Your task to perform on an android device: change text size in settings app Image 0: 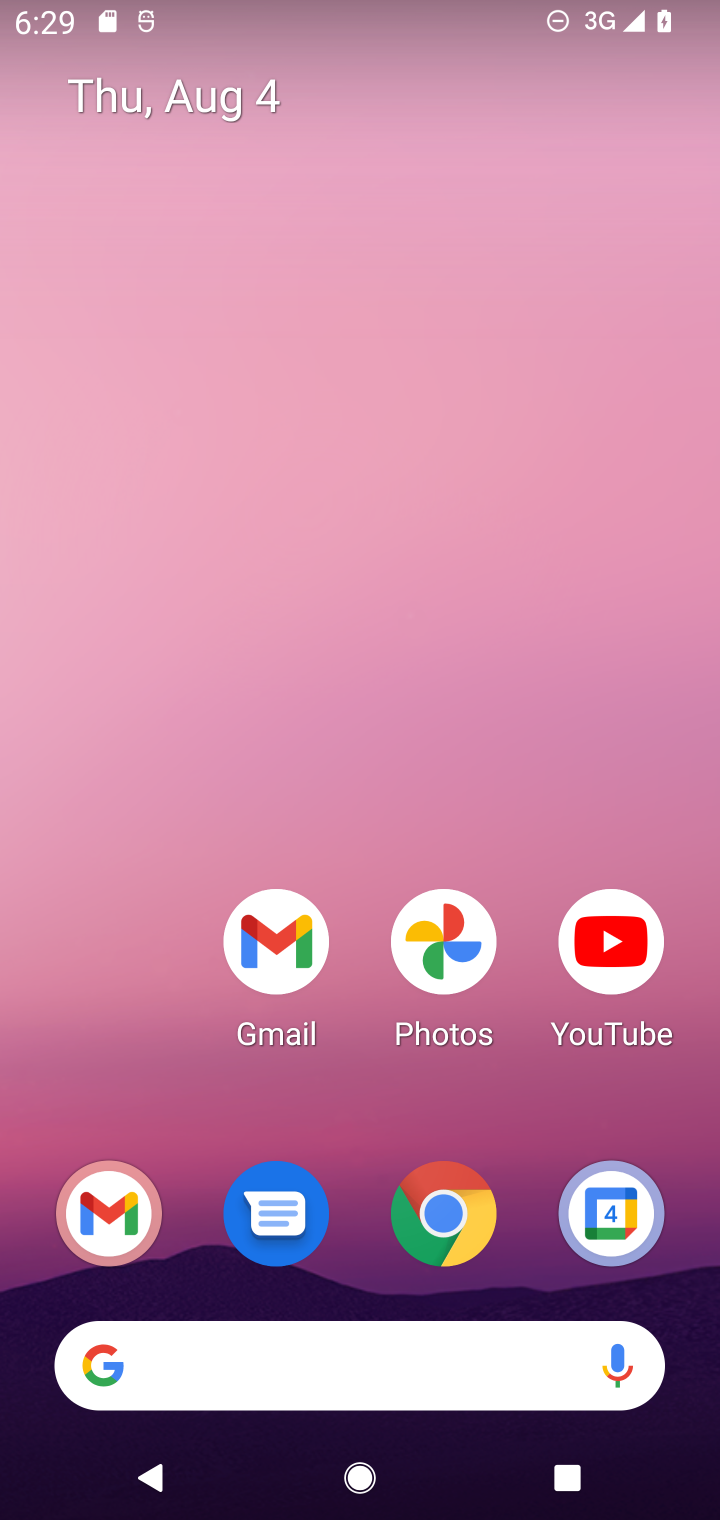
Step 0: press home button
Your task to perform on an android device: change text size in settings app Image 1: 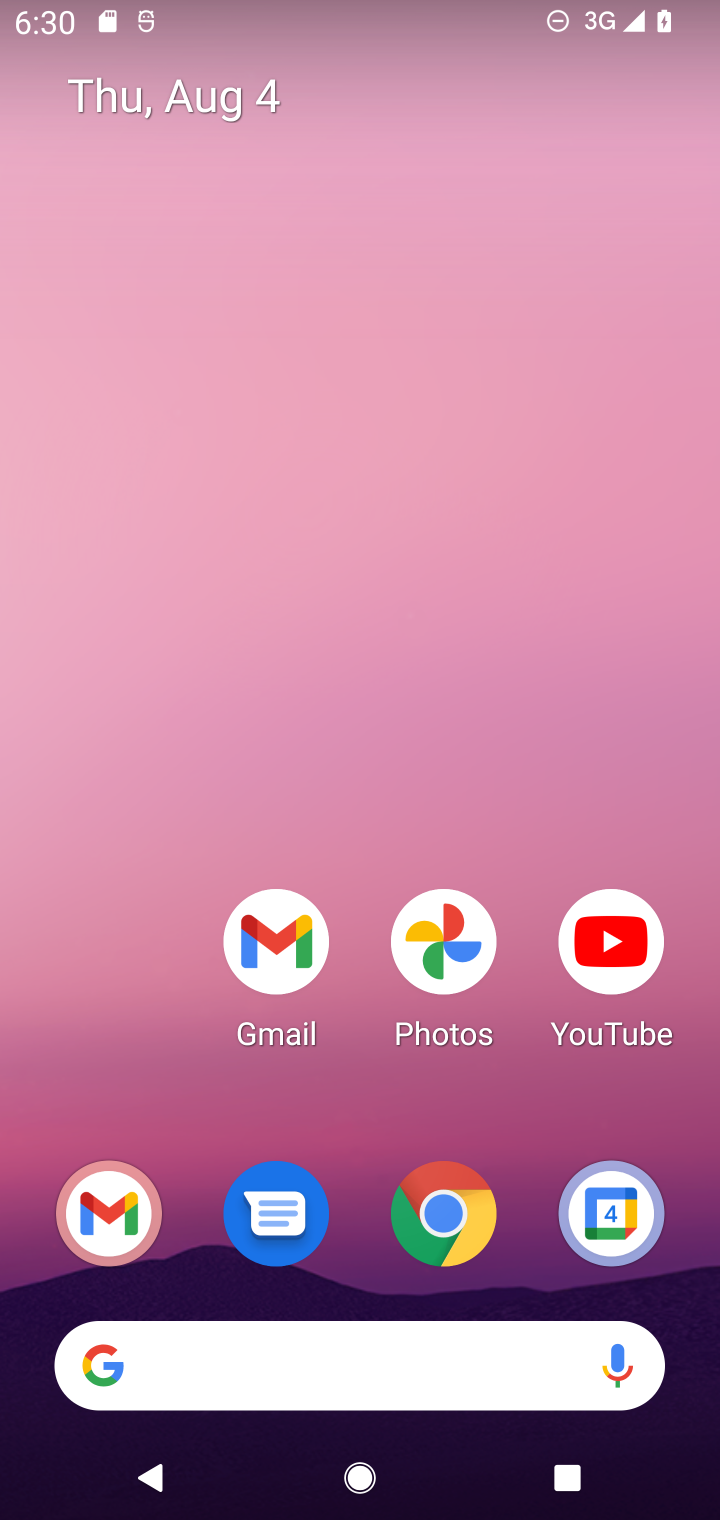
Step 1: drag from (129, 1014) to (64, 285)
Your task to perform on an android device: change text size in settings app Image 2: 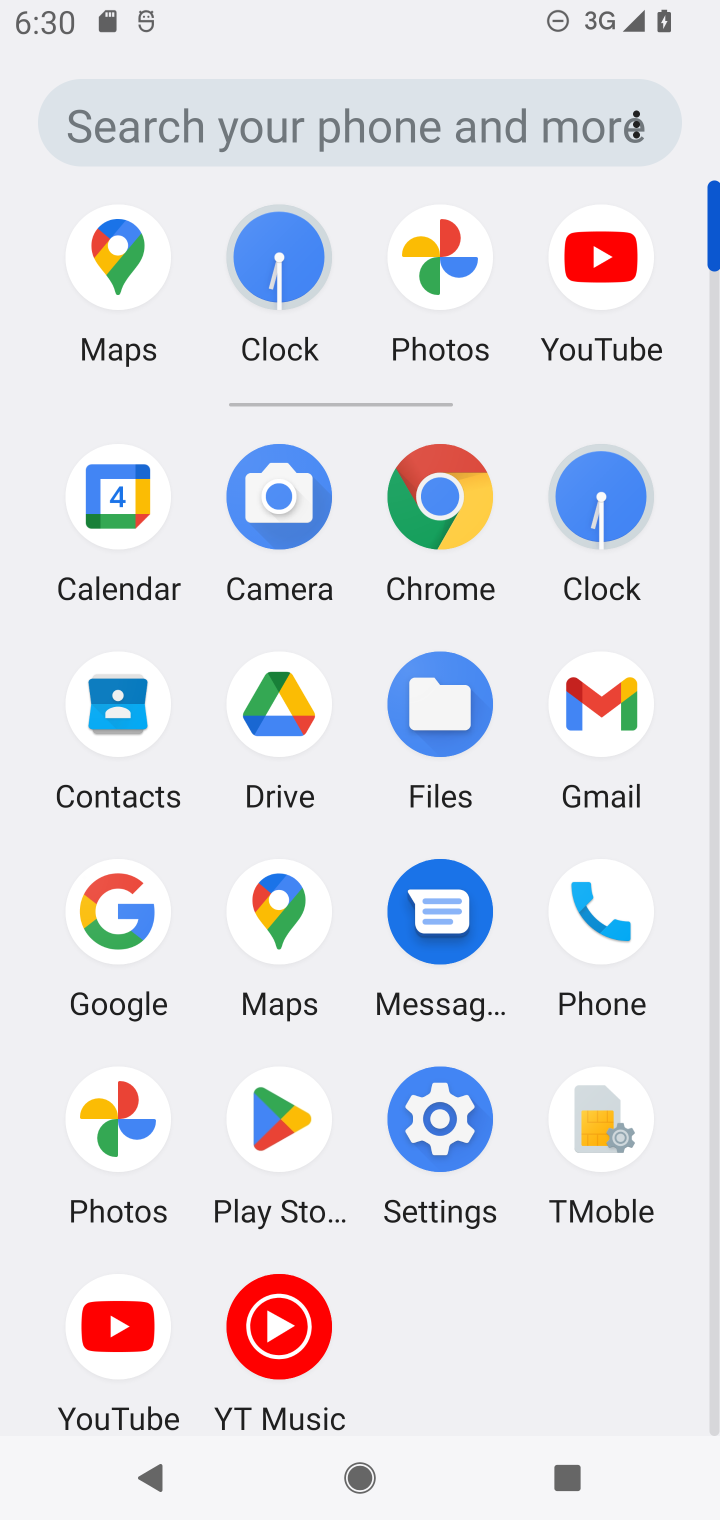
Step 2: click (456, 1120)
Your task to perform on an android device: change text size in settings app Image 3: 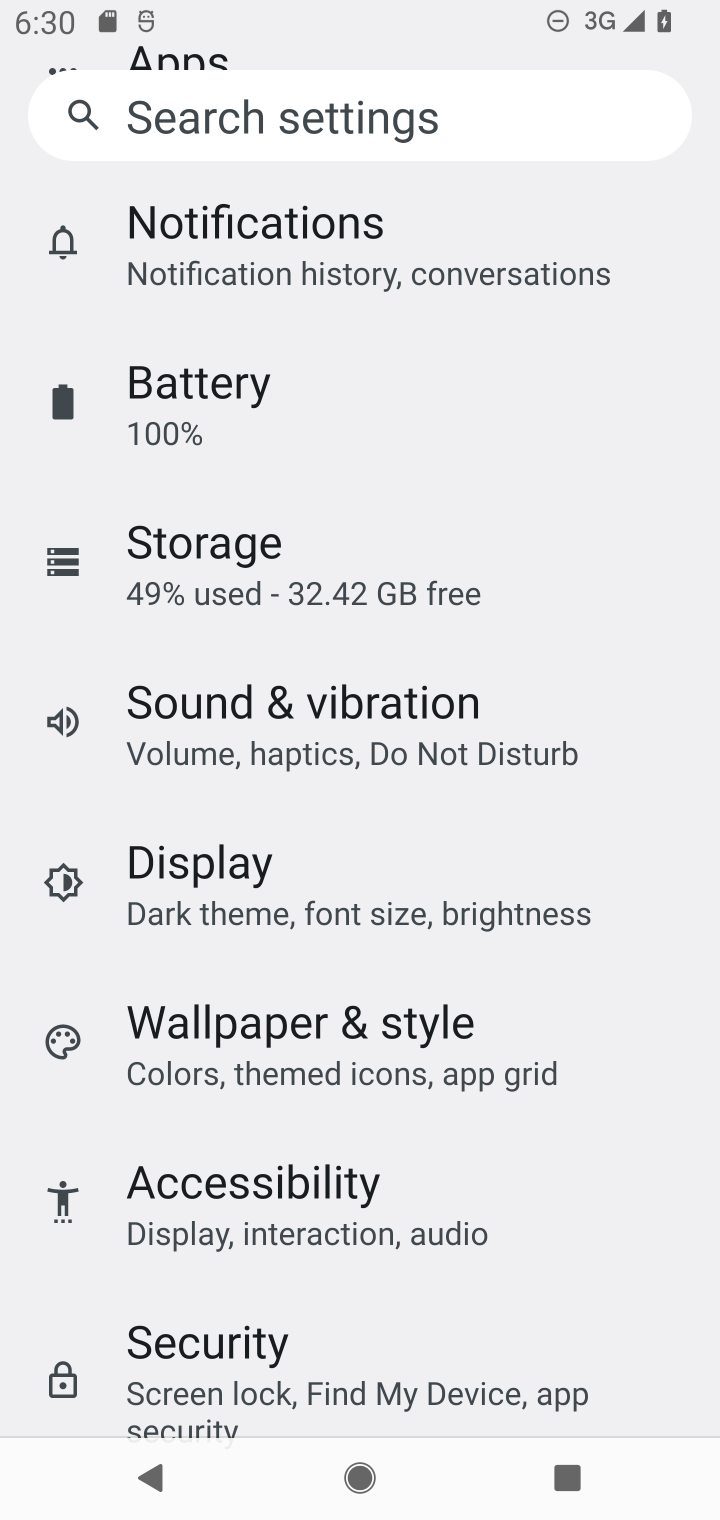
Step 3: drag from (599, 530) to (611, 819)
Your task to perform on an android device: change text size in settings app Image 4: 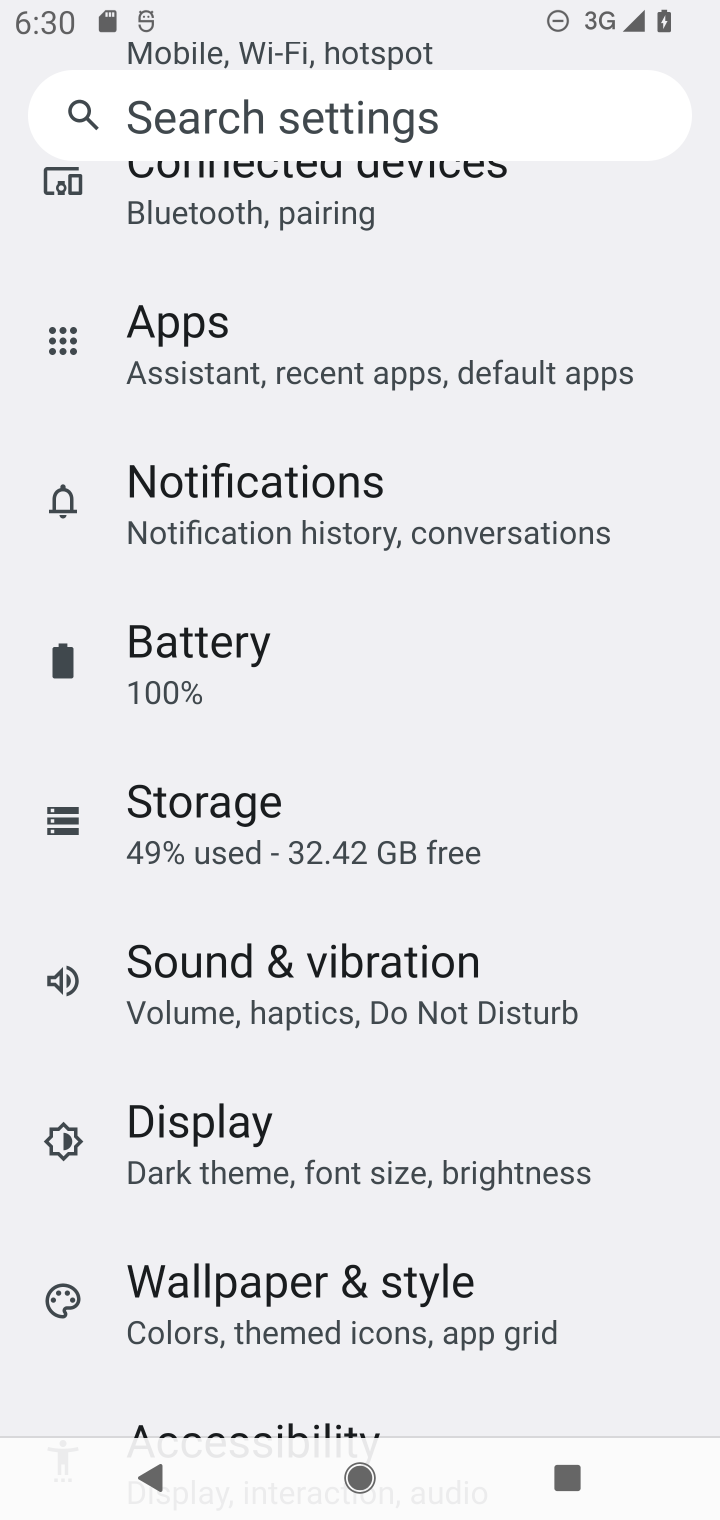
Step 4: drag from (604, 432) to (604, 897)
Your task to perform on an android device: change text size in settings app Image 5: 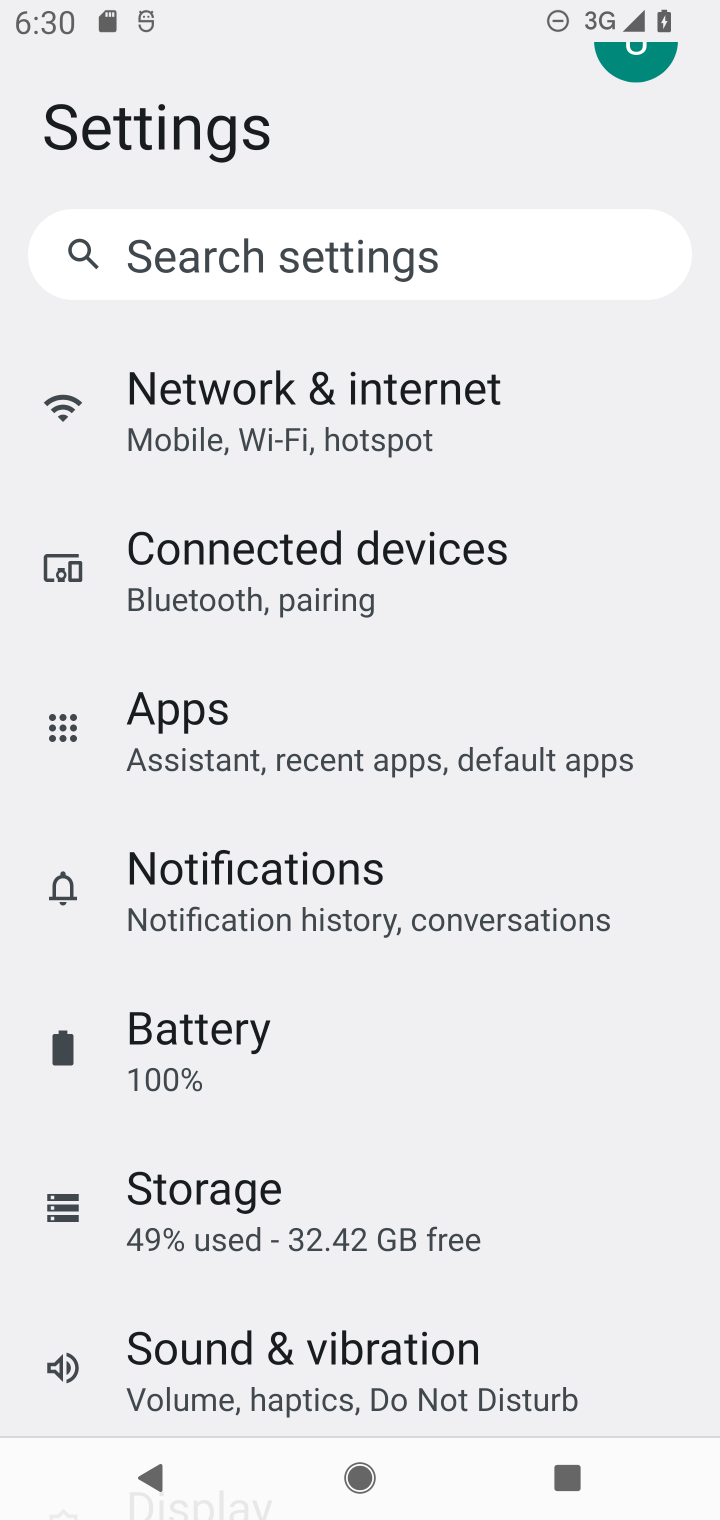
Step 5: drag from (604, 1049) to (604, 784)
Your task to perform on an android device: change text size in settings app Image 6: 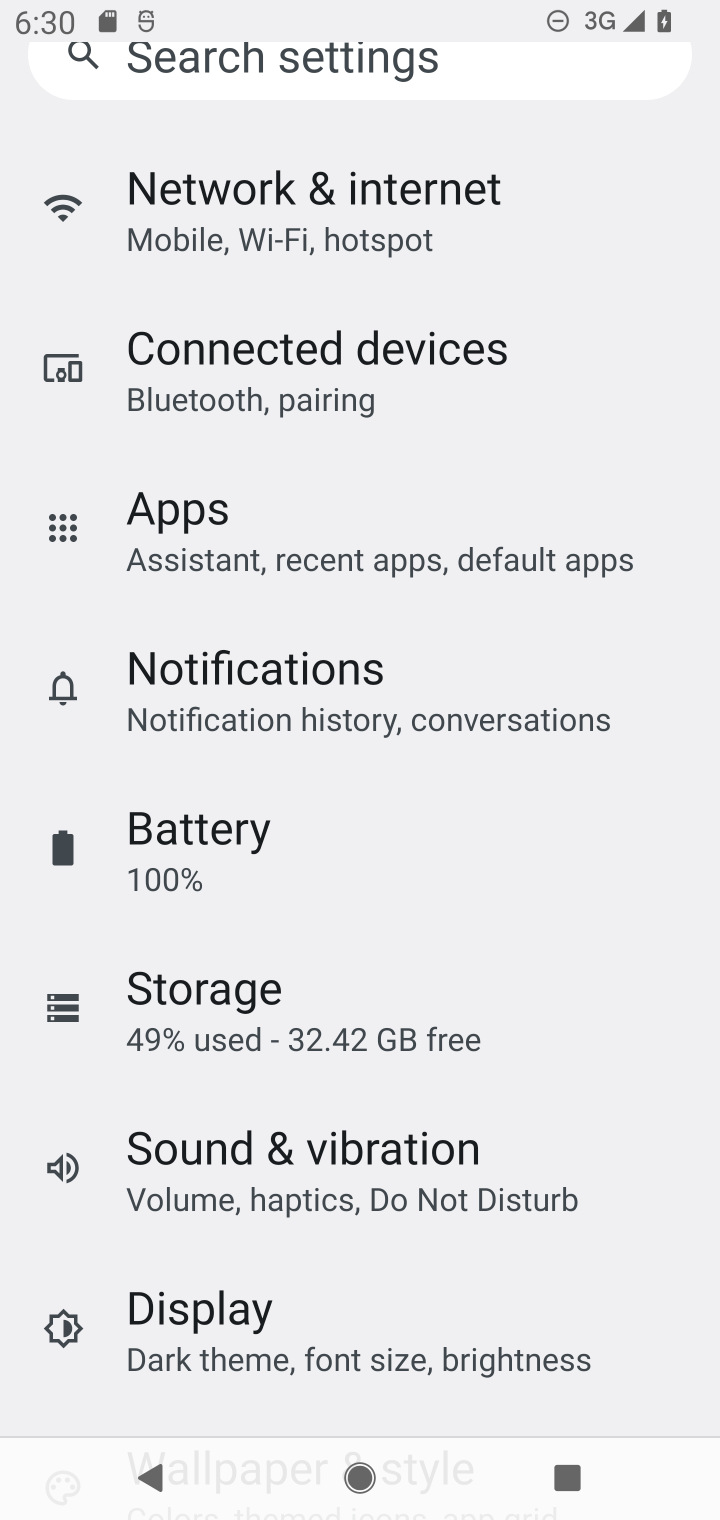
Step 6: drag from (601, 1110) to (591, 789)
Your task to perform on an android device: change text size in settings app Image 7: 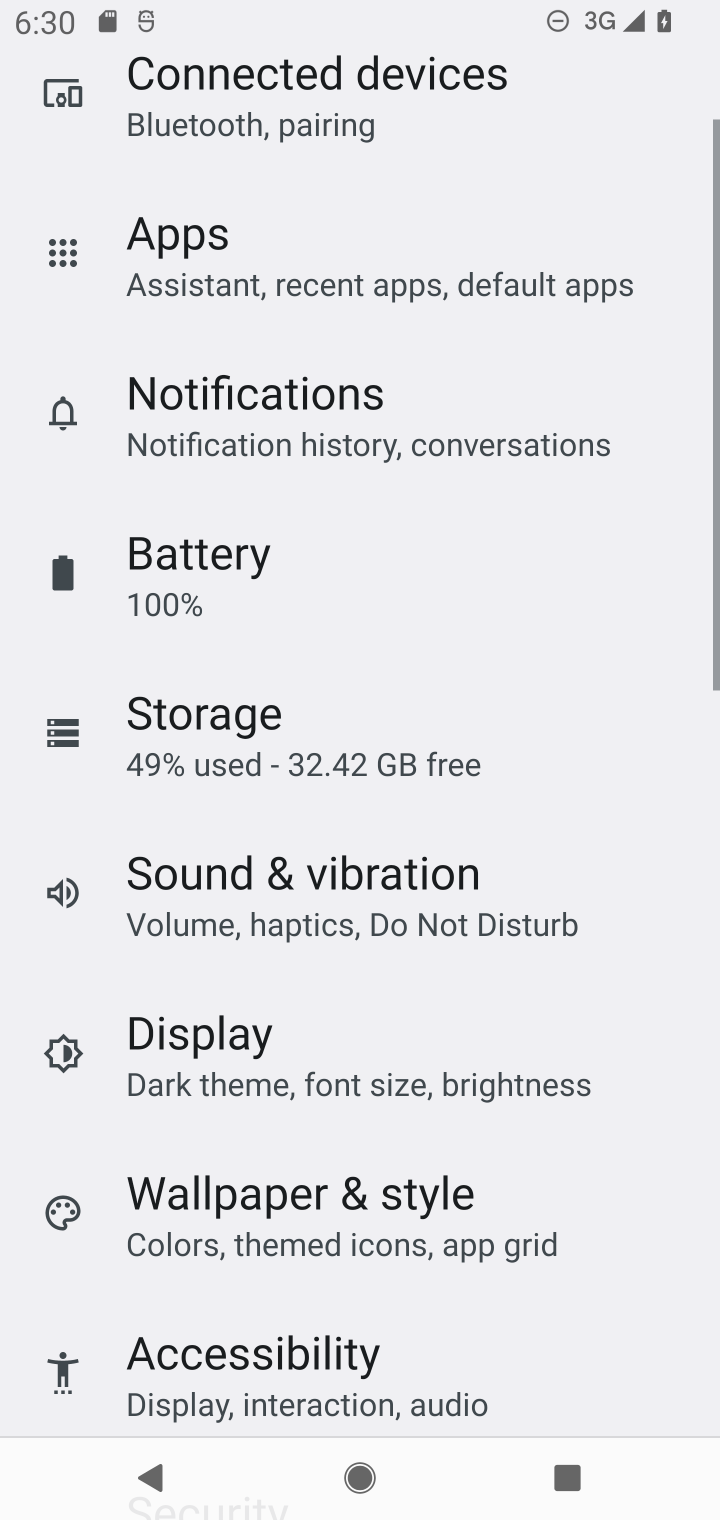
Step 7: drag from (580, 1138) to (649, 797)
Your task to perform on an android device: change text size in settings app Image 8: 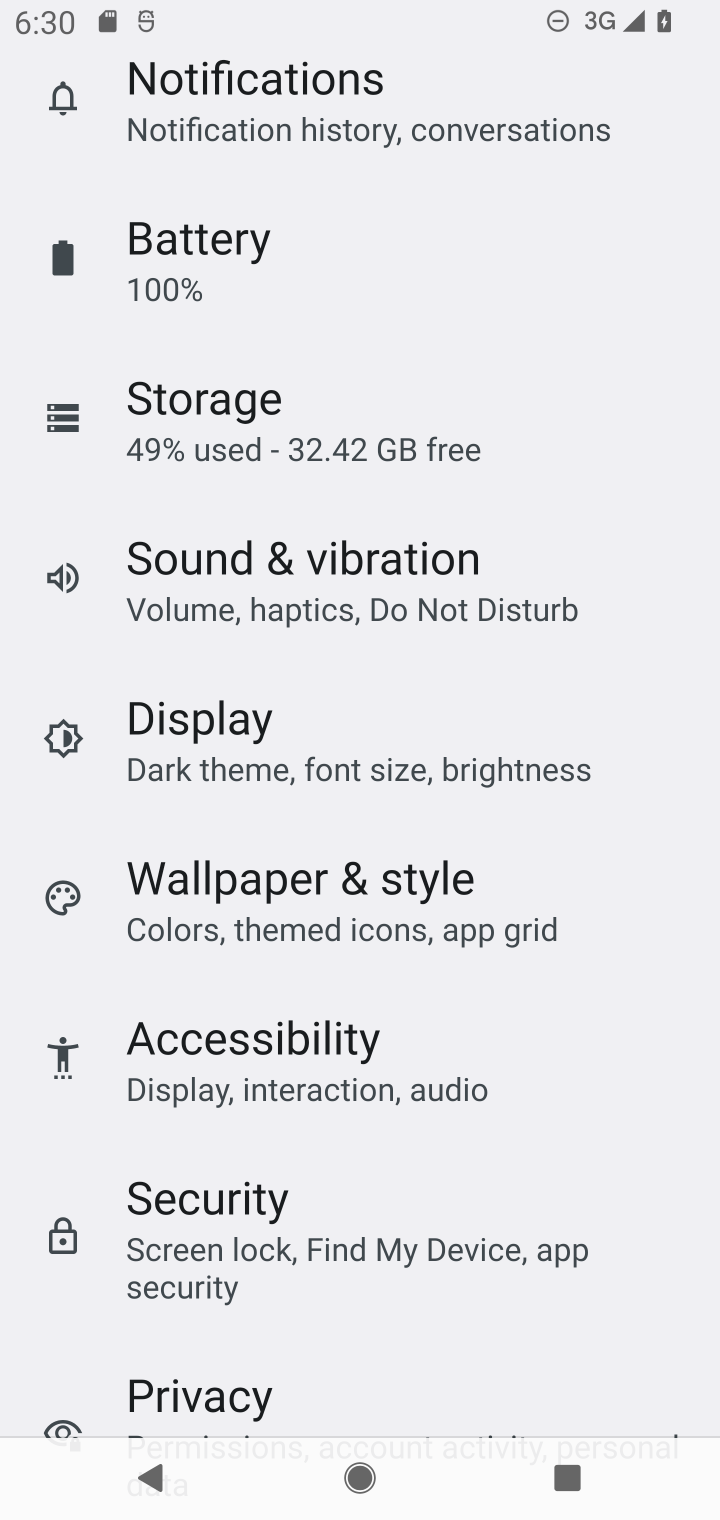
Step 8: drag from (623, 1282) to (634, 877)
Your task to perform on an android device: change text size in settings app Image 9: 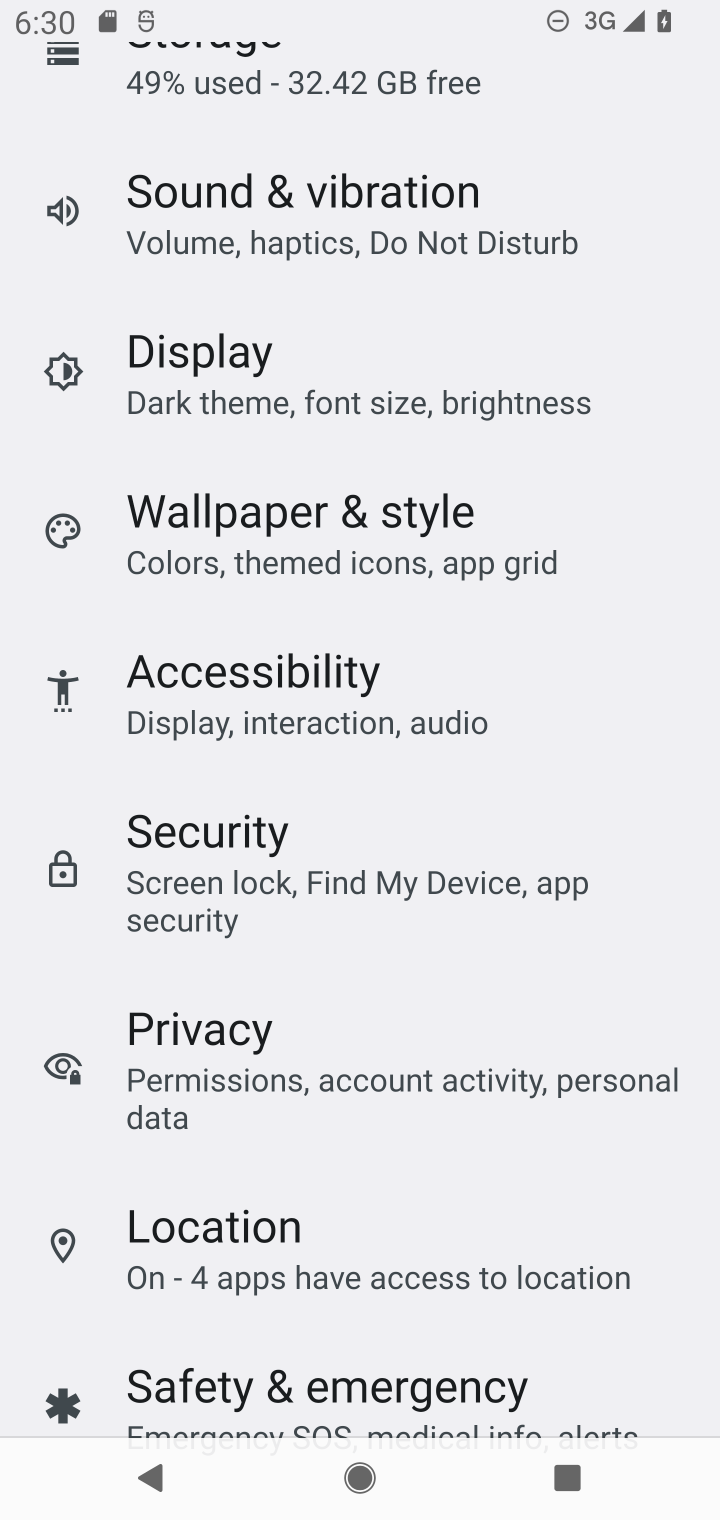
Step 9: click (501, 390)
Your task to perform on an android device: change text size in settings app Image 10: 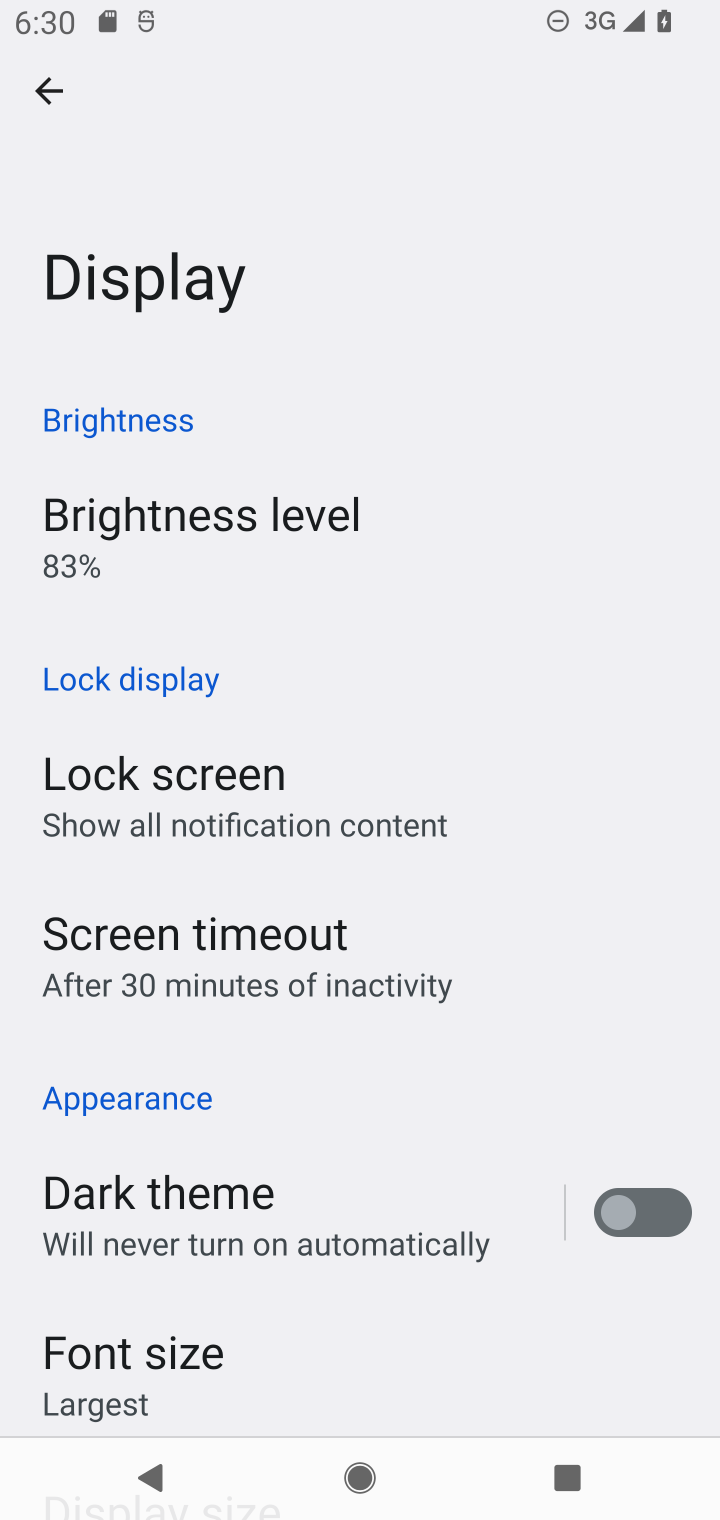
Step 10: drag from (547, 963) to (564, 567)
Your task to perform on an android device: change text size in settings app Image 11: 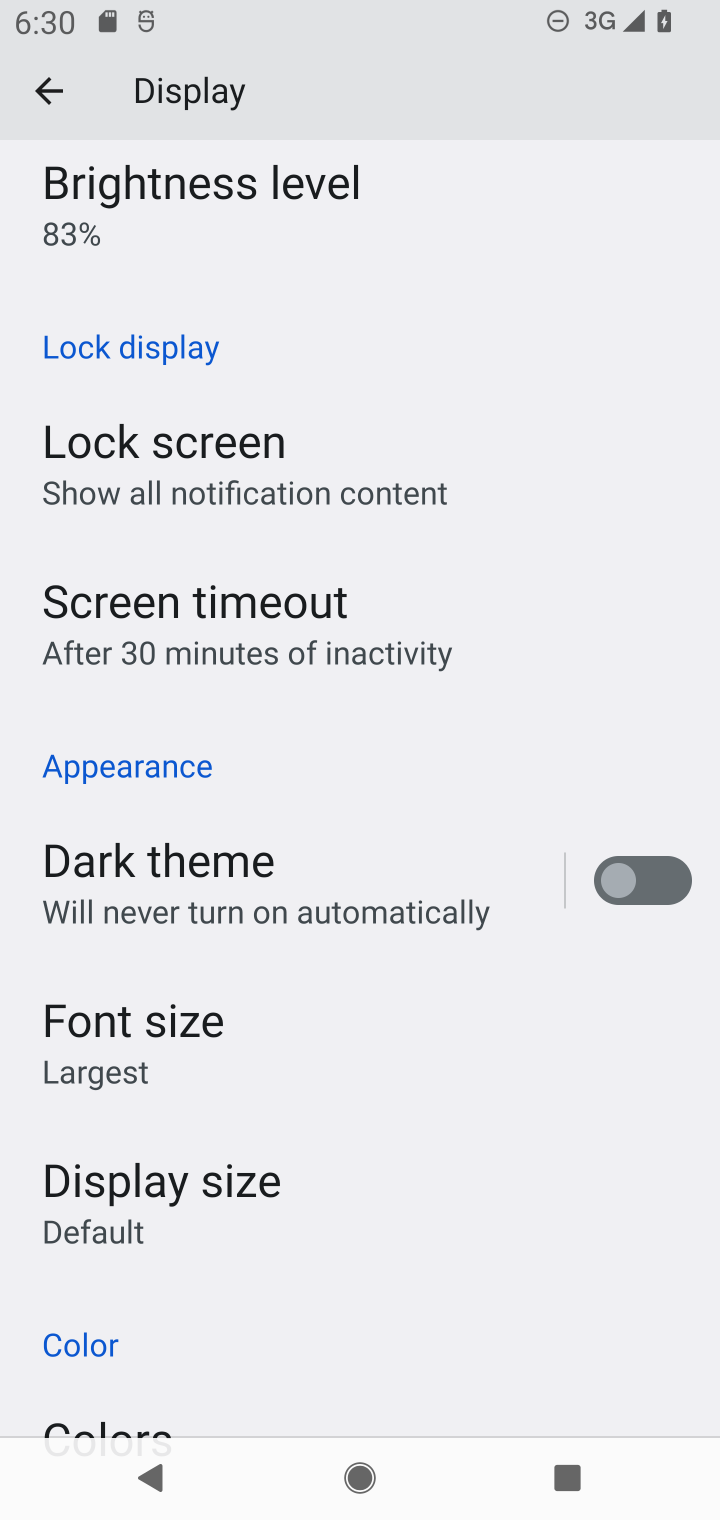
Step 11: drag from (469, 1093) to (467, 763)
Your task to perform on an android device: change text size in settings app Image 12: 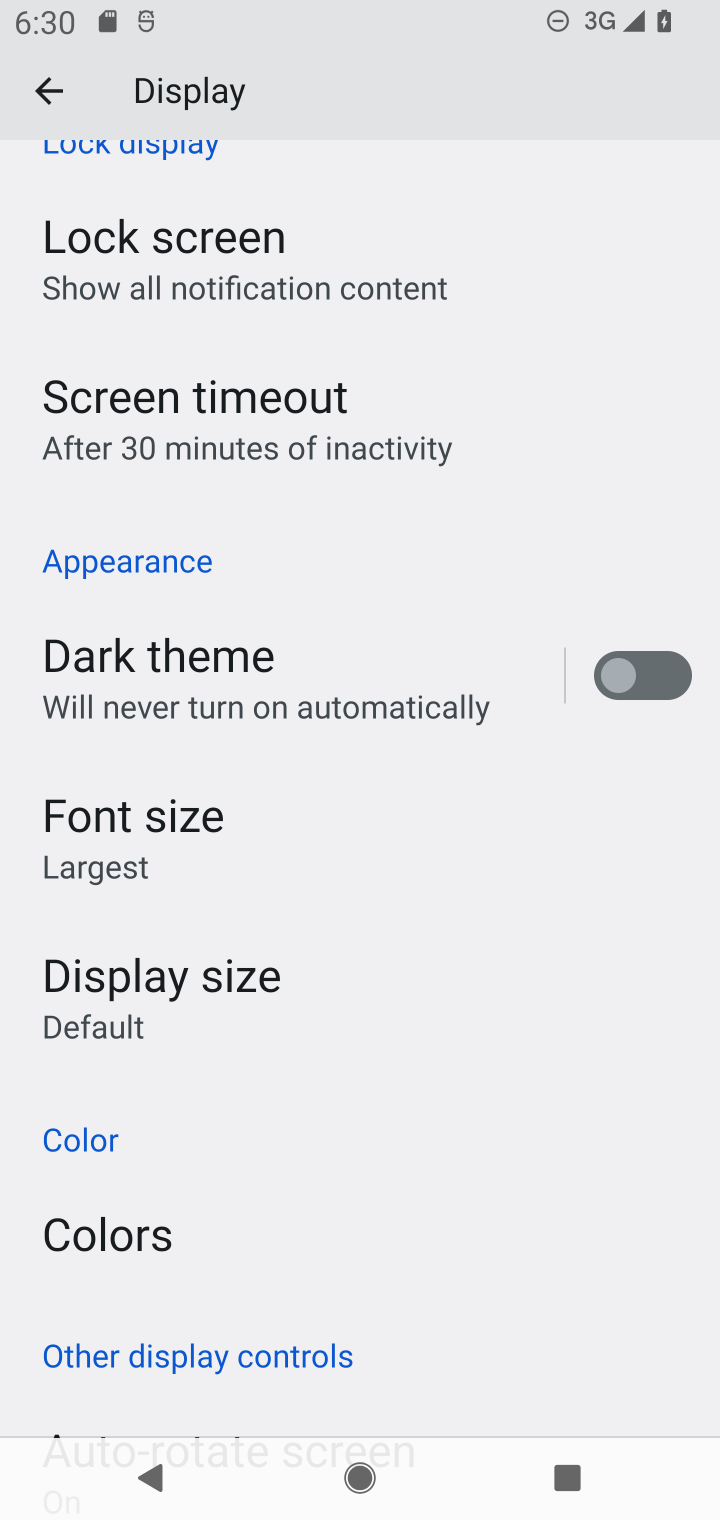
Step 12: click (215, 840)
Your task to perform on an android device: change text size in settings app Image 13: 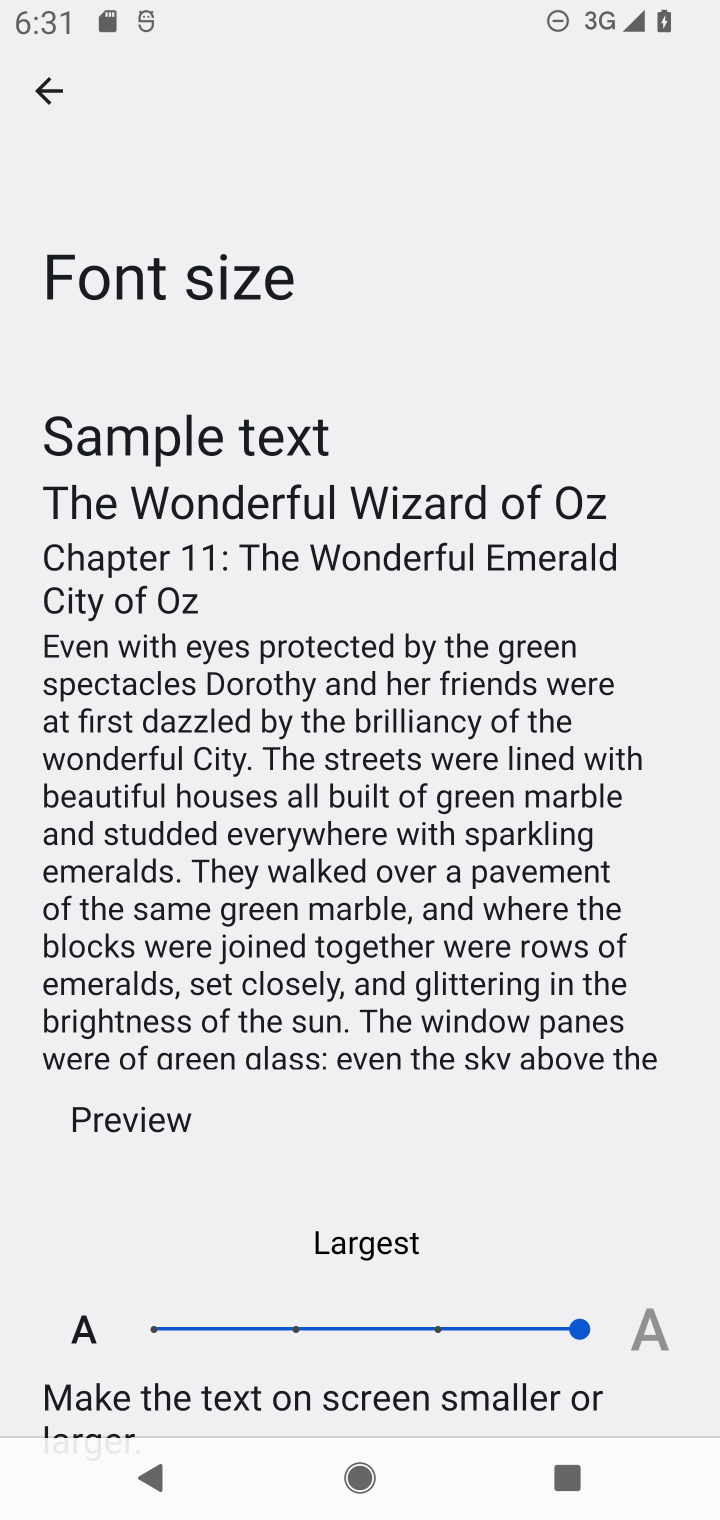
Step 13: click (439, 1327)
Your task to perform on an android device: change text size in settings app Image 14: 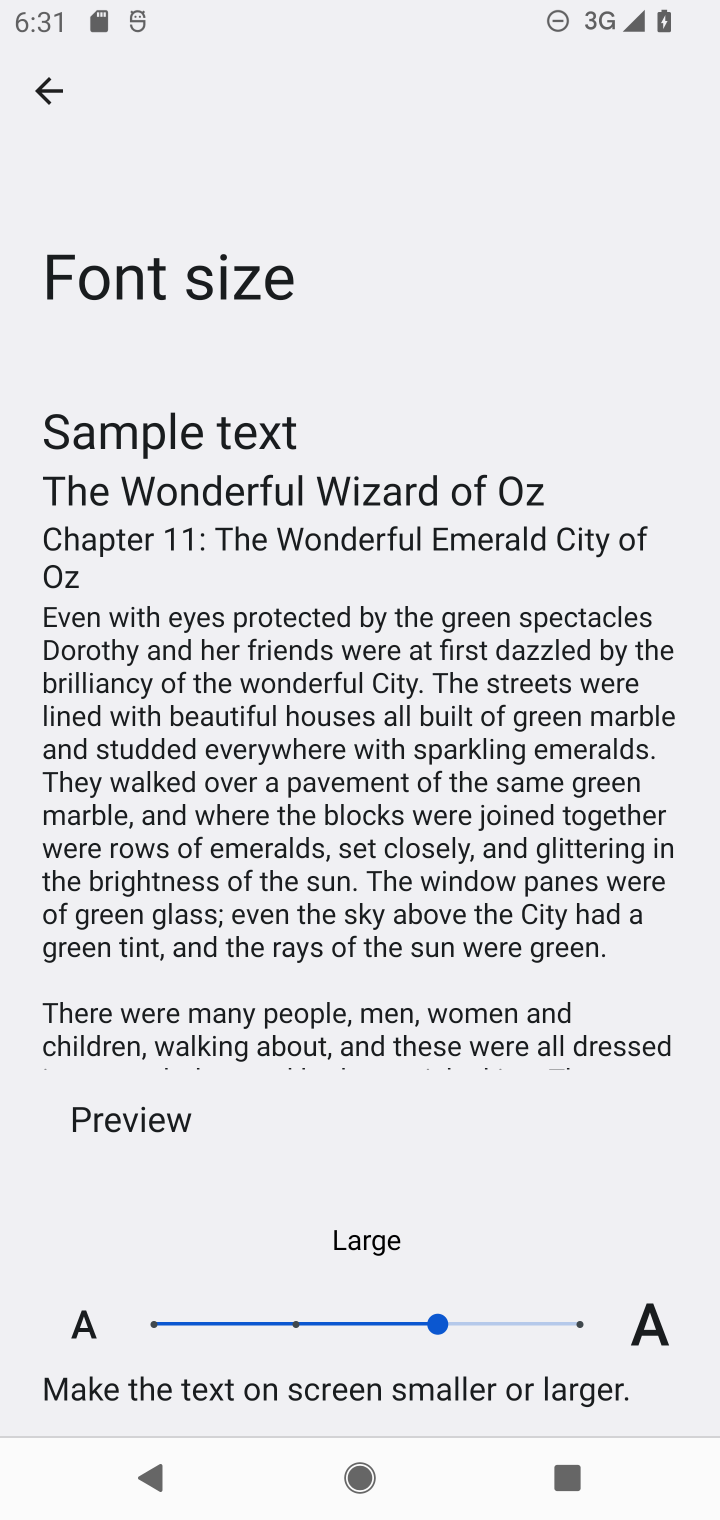
Step 14: task complete